Your task to perform on an android device: set an alarm Image 0: 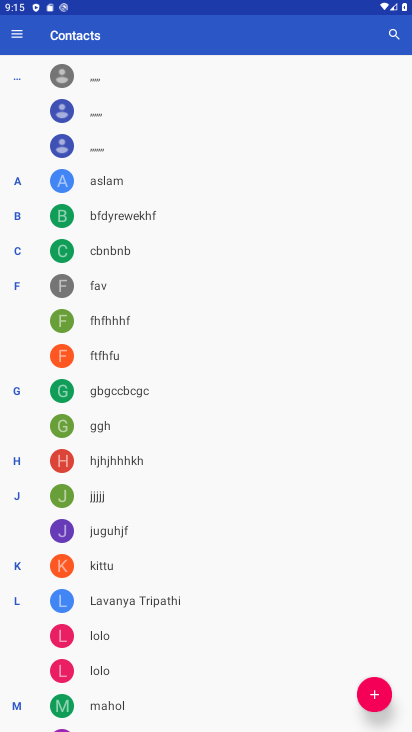
Step 0: press home button
Your task to perform on an android device: set an alarm Image 1: 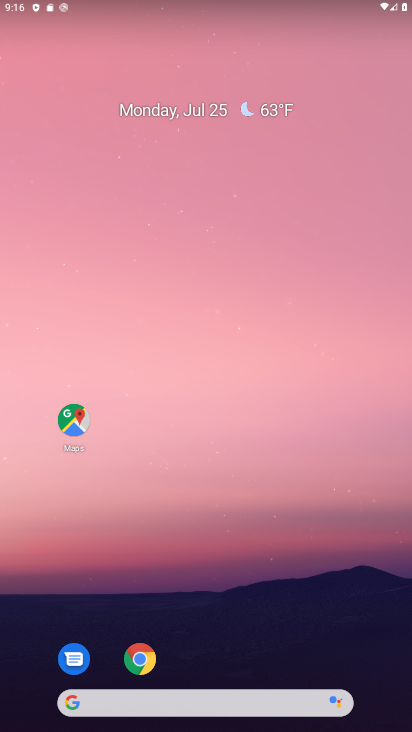
Step 1: drag from (241, 635) to (245, 183)
Your task to perform on an android device: set an alarm Image 2: 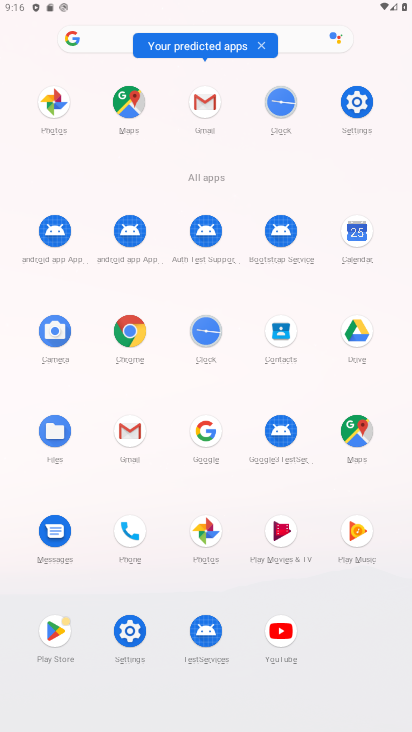
Step 2: click (205, 329)
Your task to perform on an android device: set an alarm Image 3: 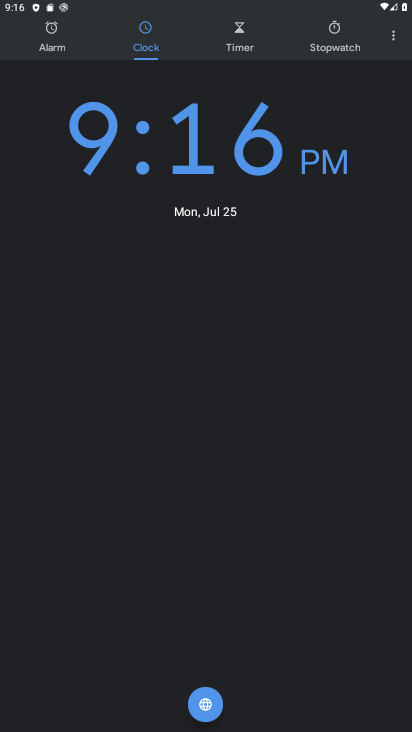
Step 3: click (56, 36)
Your task to perform on an android device: set an alarm Image 4: 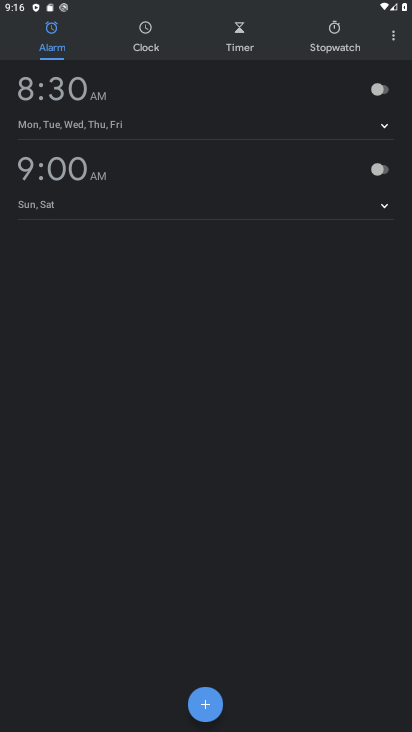
Step 4: click (205, 704)
Your task to perform on an android device: set an alarm Image 5: 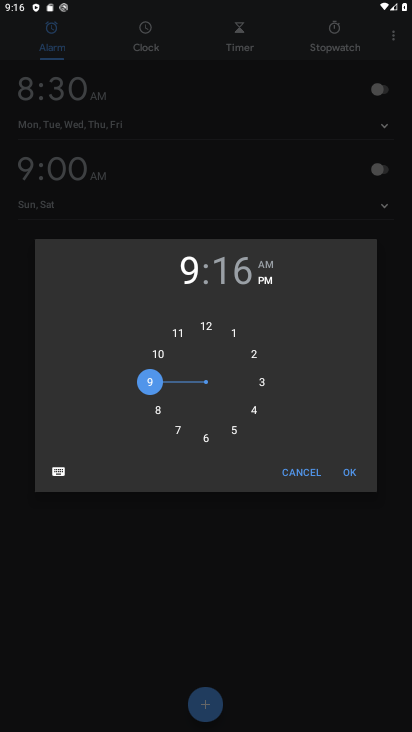
Step 5: click (202, 438)
Your task to perform on an android device: set an alarm Image 6: 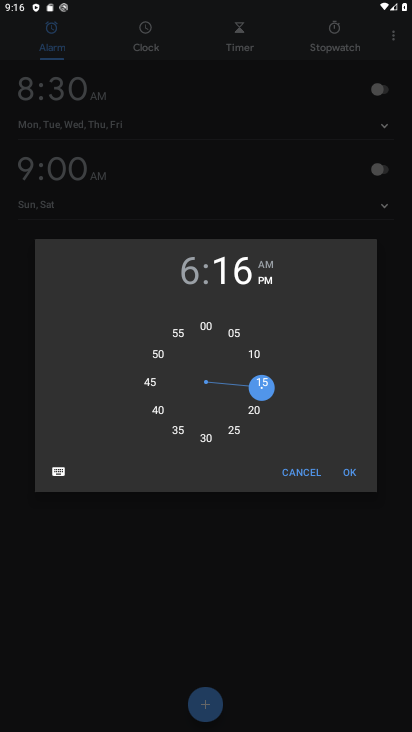
Step 6: click (352, 467)
Your task to perform on an android device: set an alarm Image 7: 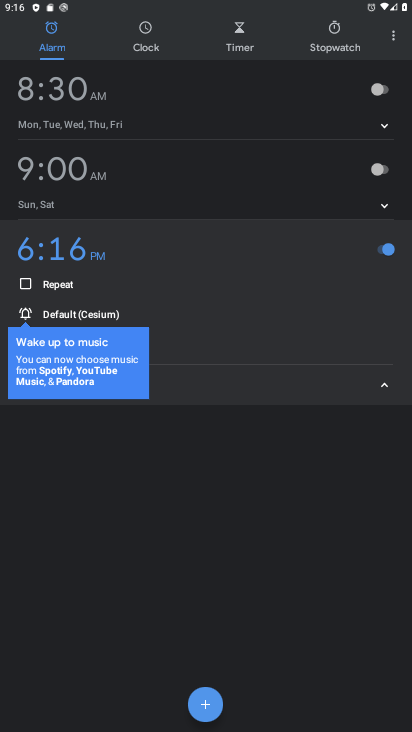
Step 7: task complete